Your task to perform on an android device: install app "Google Chat" Image 0: 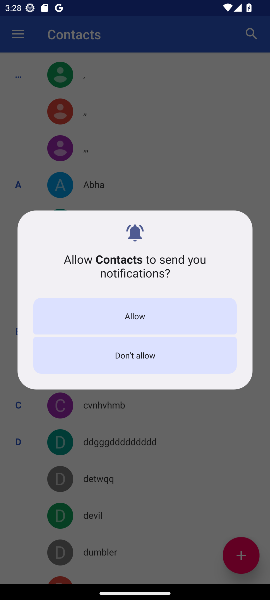
Step 0: press home button
Your task to perform on an android device: install app "Google Chat" Image 1: 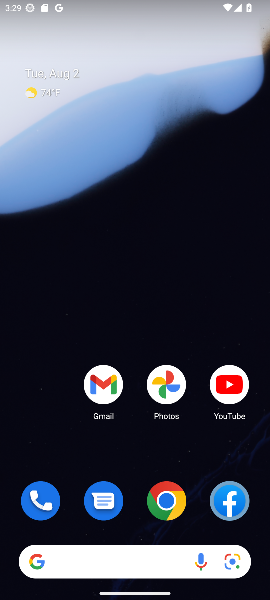
Step 1: drag from (118, 462) to (149, 49)
Your task to perform on an android device: install app "Google Chat" Image 2: 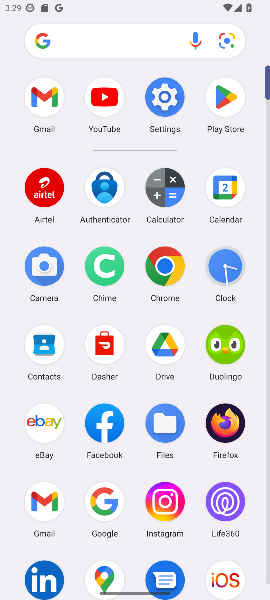
Step 2: click (225, 90)
Your task to perform on an android device: install app "Google Chat" Image 3: 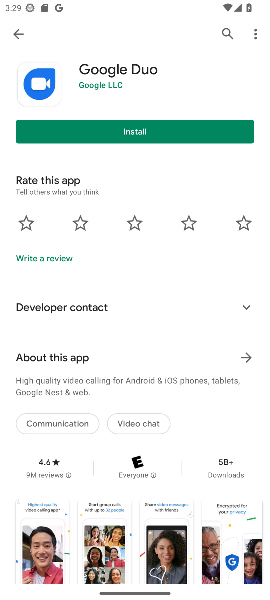
Step 3: click (222, 33)
Your task to perform on an android device: install app "Google Chat" Image 4: 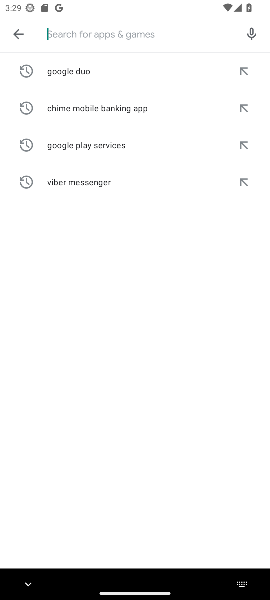
Step 4: type "Google Chat"
Your task to perform on an android device: install app "Google Chat" Image 5: 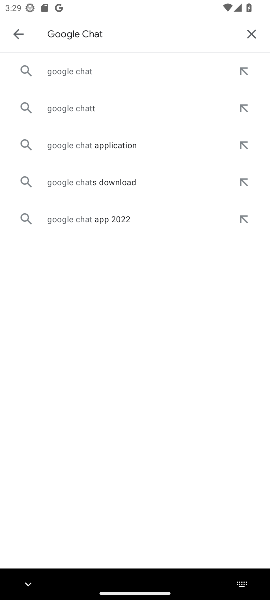
Step 5: click (66, 78)
Your task to perform on an android device: install app "Google Chat" Image 6: 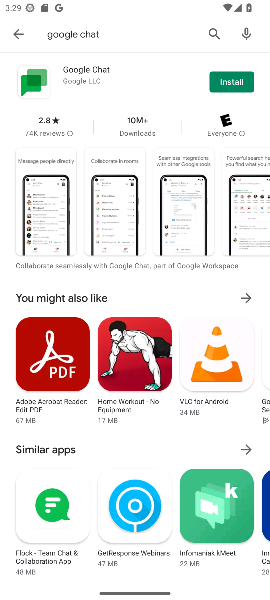
Step 6: click (224, 82)
Your task to perform on an android device: install app "Google Chat" Image 7: 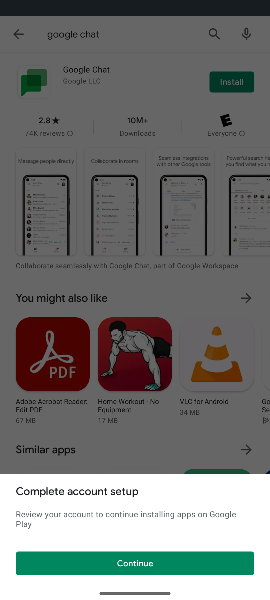
Step 7: click (138, 560)
Your task to perform on an android device: install app "Google Chat" Image 8: 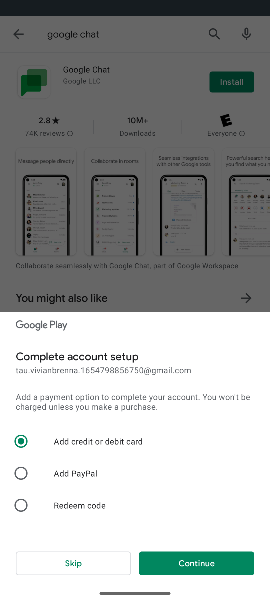
Step 8: click (77, 564)
Your task to perform on an android device: install app "Google Chat" Image 9: 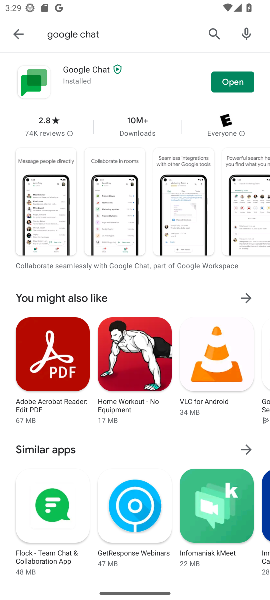
Step 9: task complete